Your task to perform on an android device: Open the calendar and show me this week's events? Image 0: 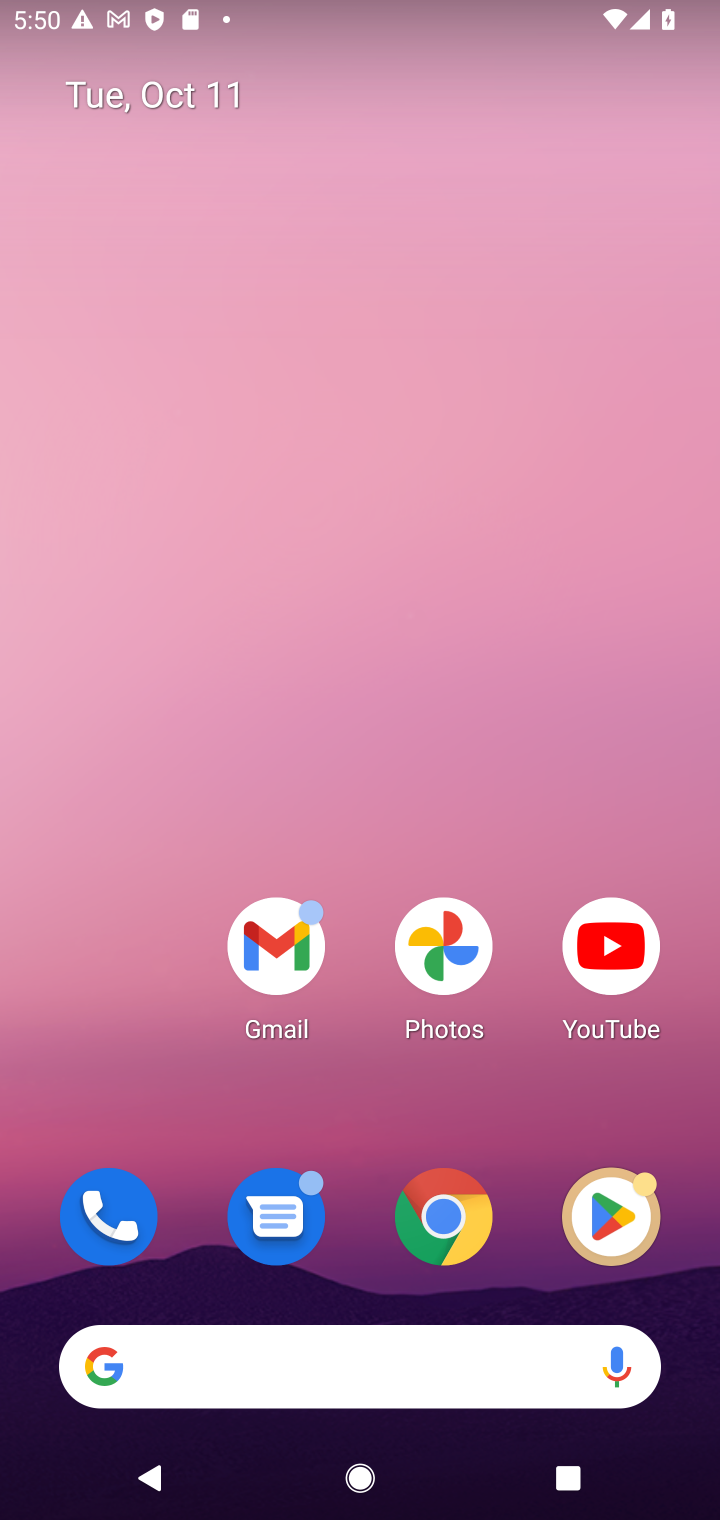
Step 0: drag from (327, 1359) to (391, 269)
Your task to perform on an android device: Open the calendar and show me this week's events? Image 1: 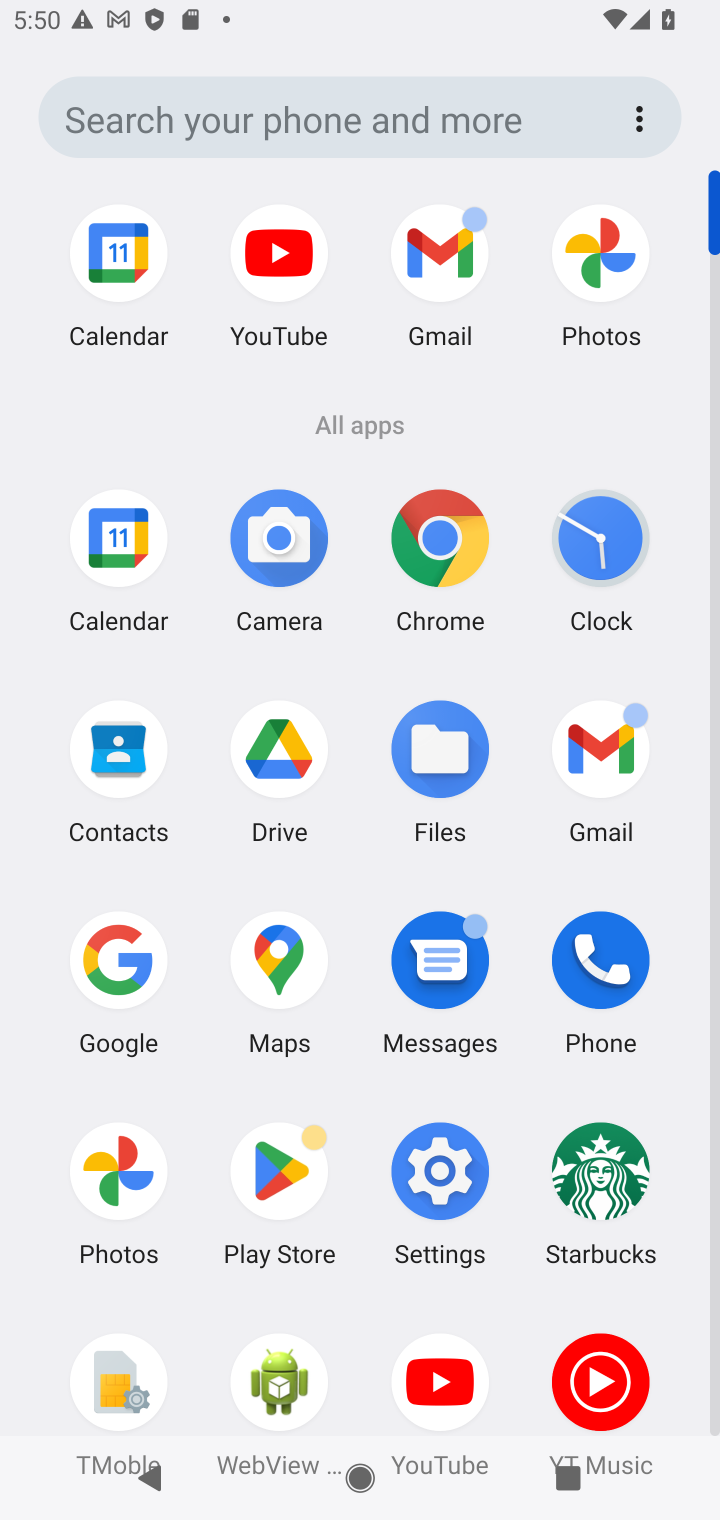
Step 1: click (120, 538)
Your task to perform on an android device: Open the calendar and show me this week's events? Image 2: 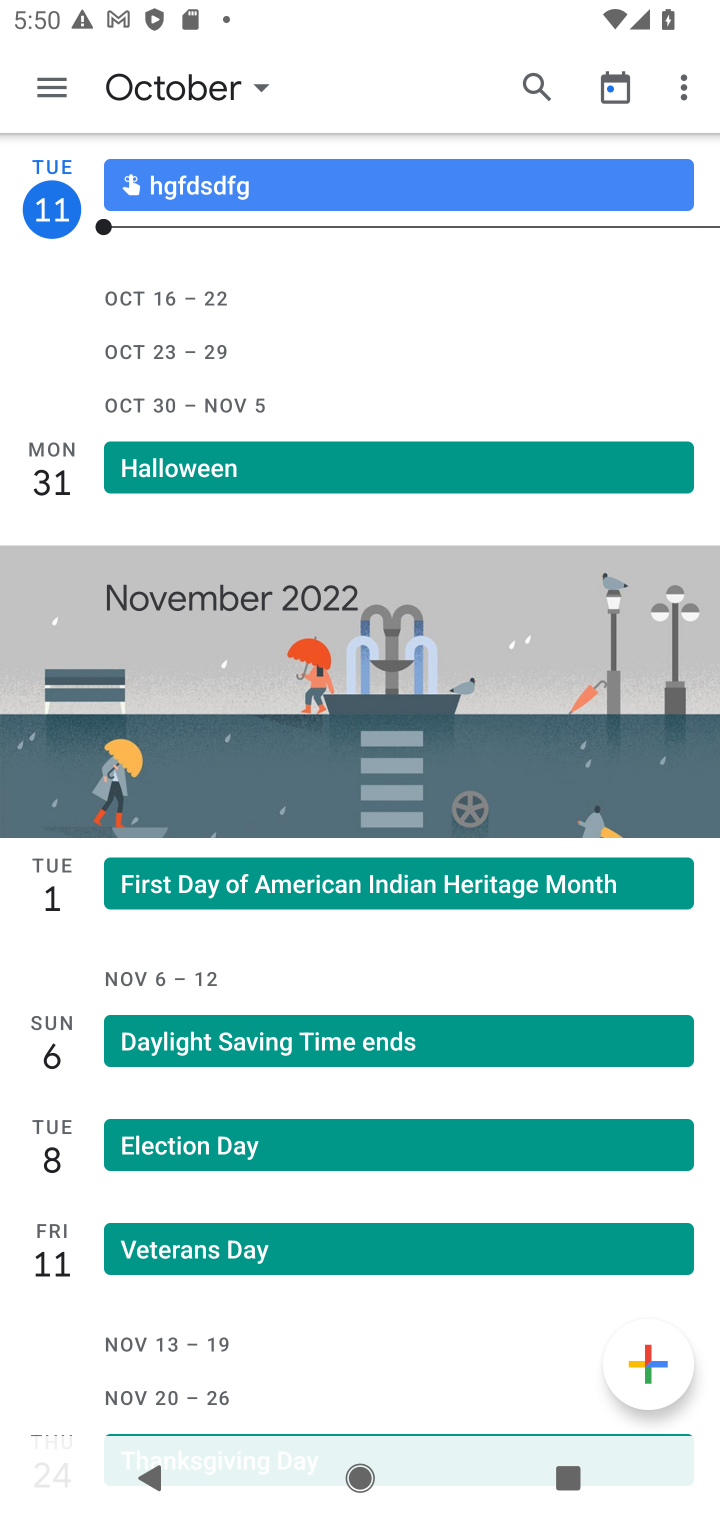
Step 2: click (262, 88)
Your task to perform on an android device: Open the calendar and show me this week's events? Image 3: 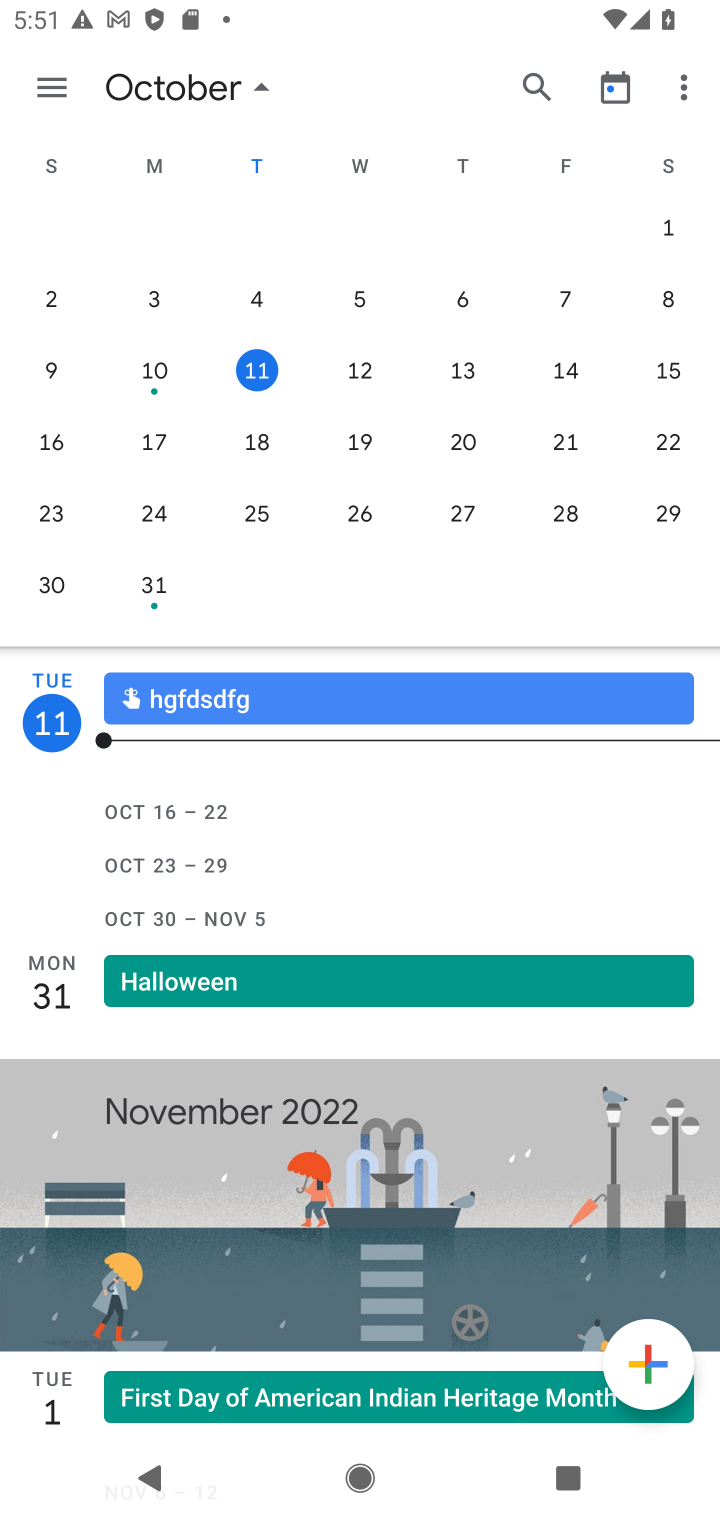
Step 3: click (155, 374)
Your task to perform on an android device: Open the calendar and show me this week's events? Image 4: 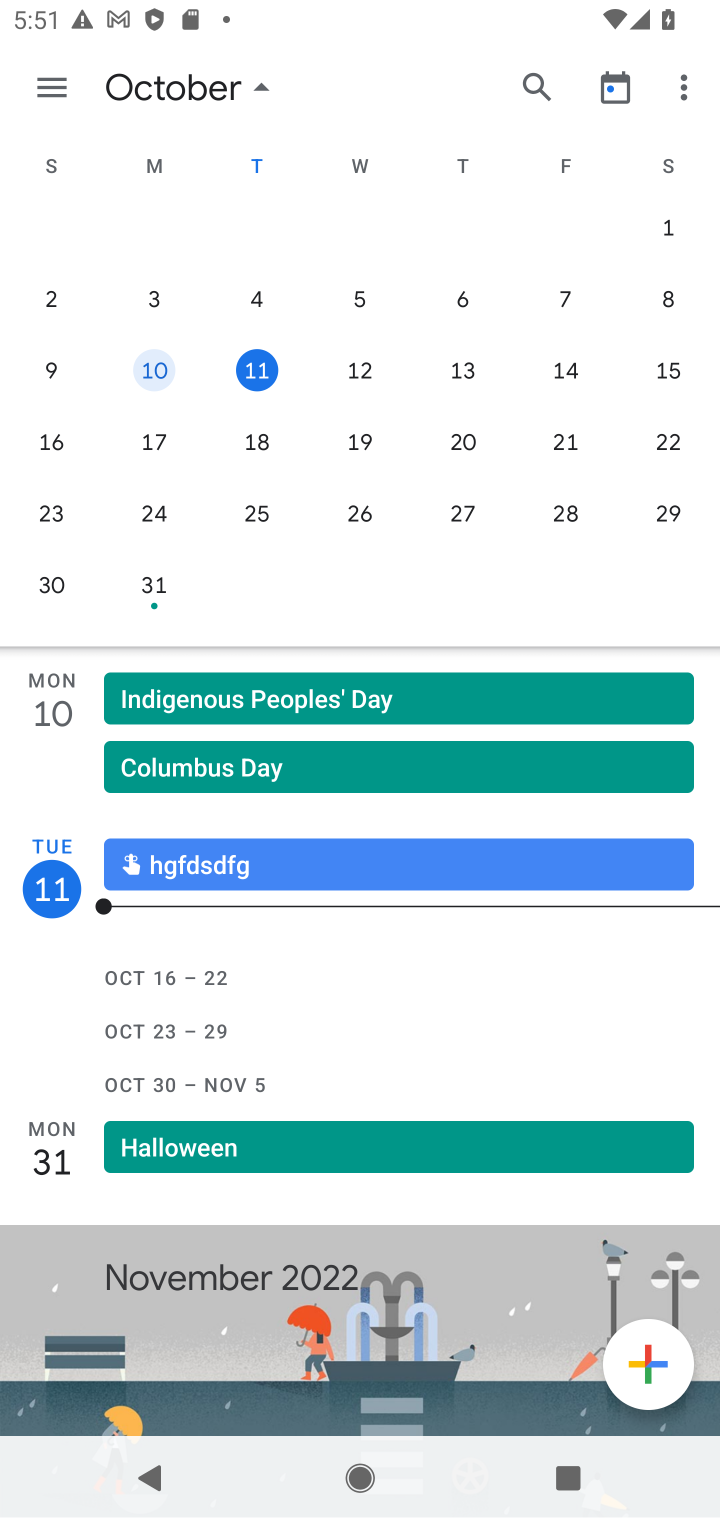
Step 4: click (52, 80)
Your task to perform on an android device: Open the calendar and show me this week's events? Image 5: 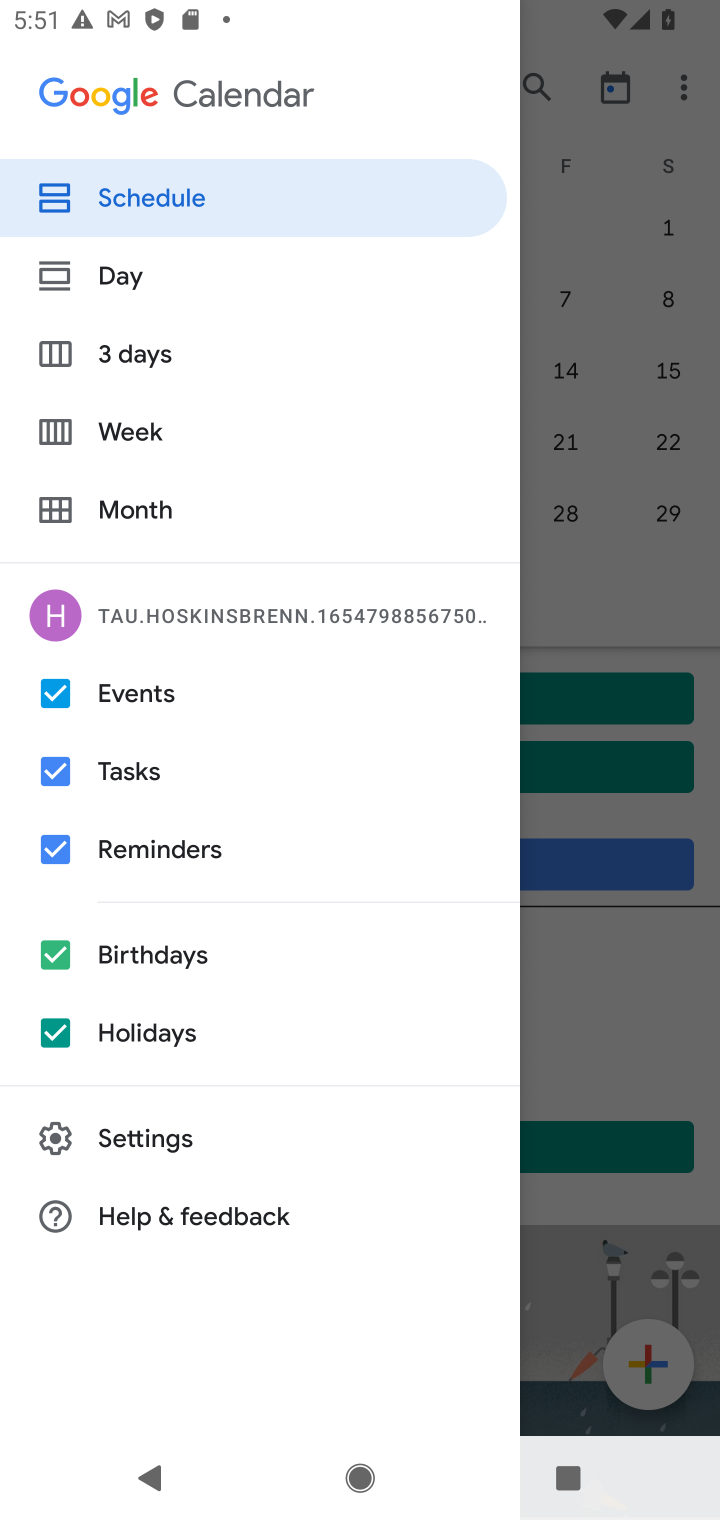
Step 5: click (149, 419)
Your task to perform on an android device: Open the calendar and show me this week's events? Image 6: 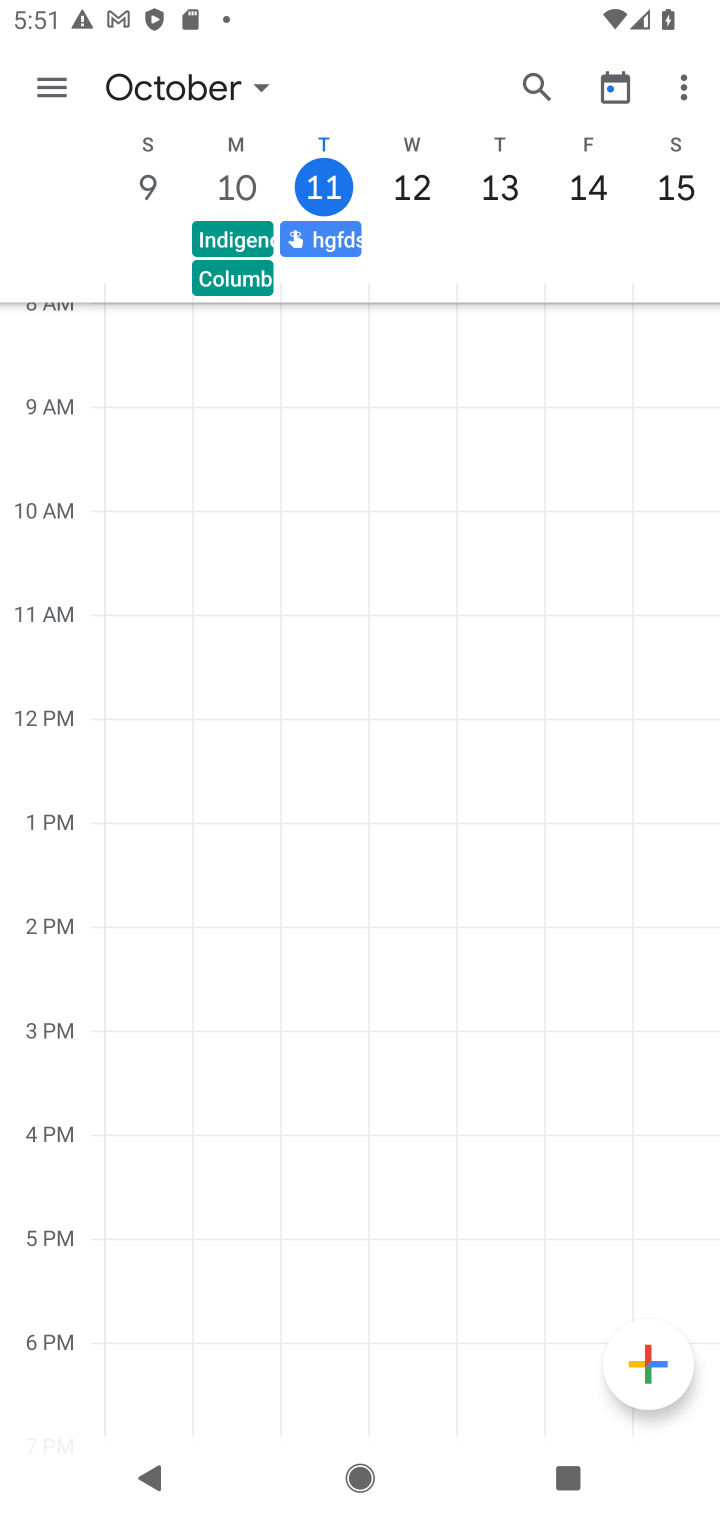
Step 6: task complete